Your task to perform on an android device: snooze an email in the gmail app Image 0: 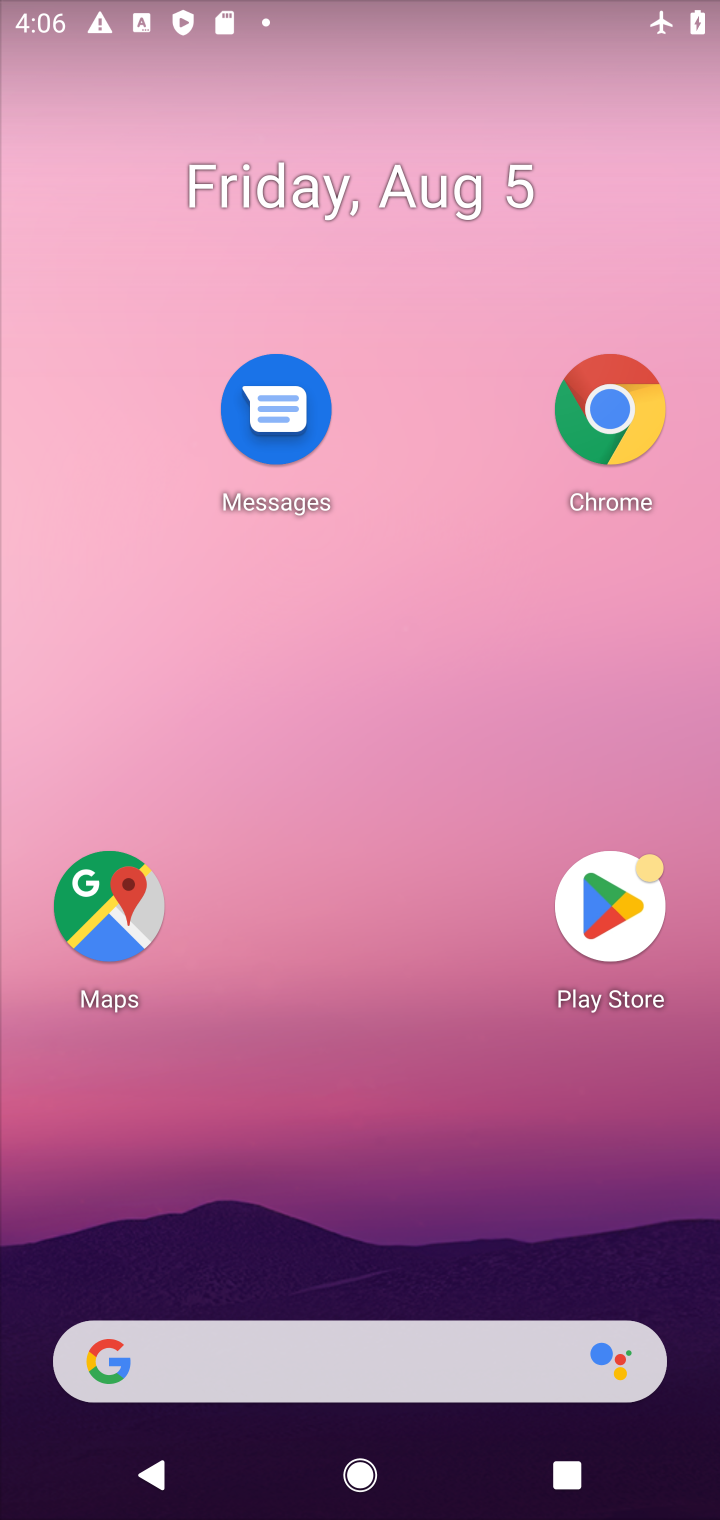
Step 0: drag from (346, 1220) to (394, 416)
Your task to perform on an android device: snooze an email in the gmail app Image 1: 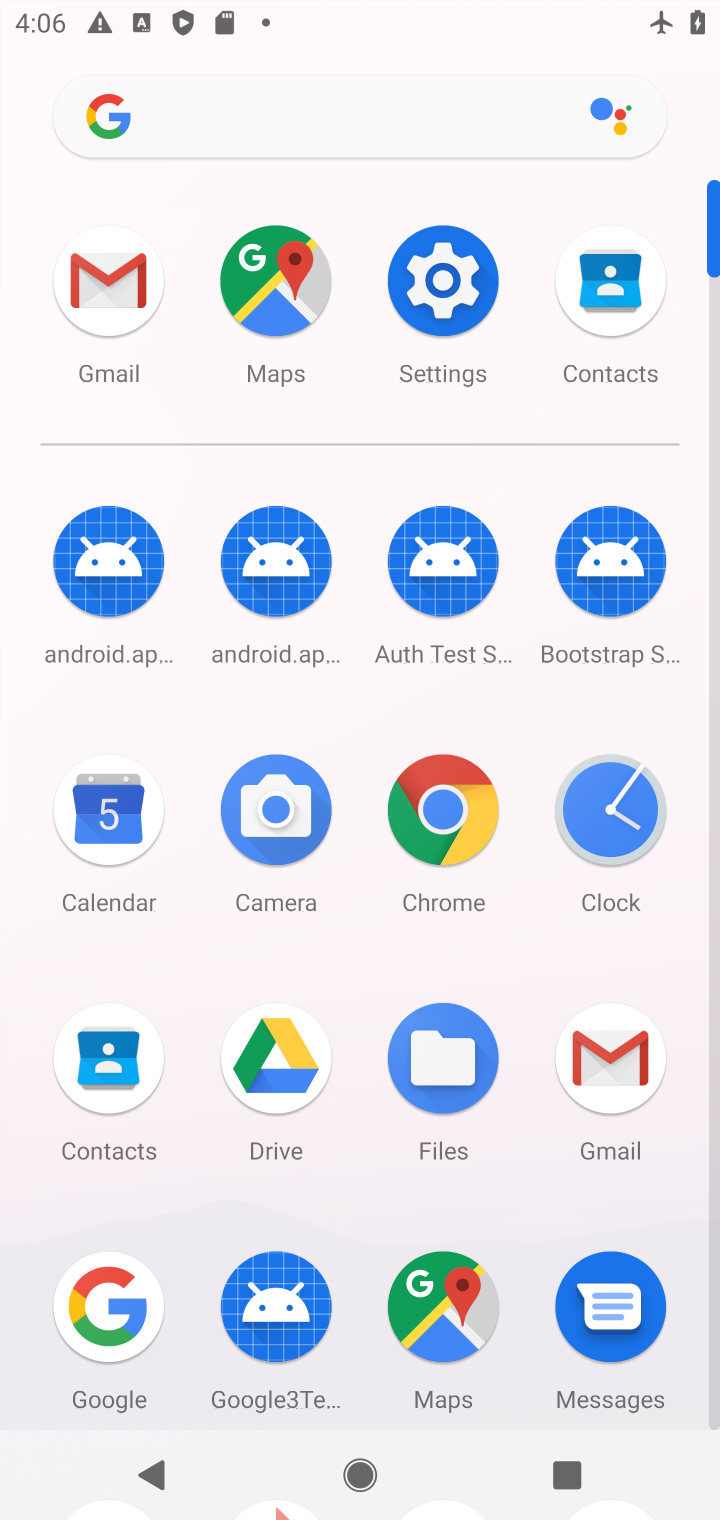
Step 1: click (102, 335)
Your task to perform on an android device: snooze an email in the gmail app Image 2: 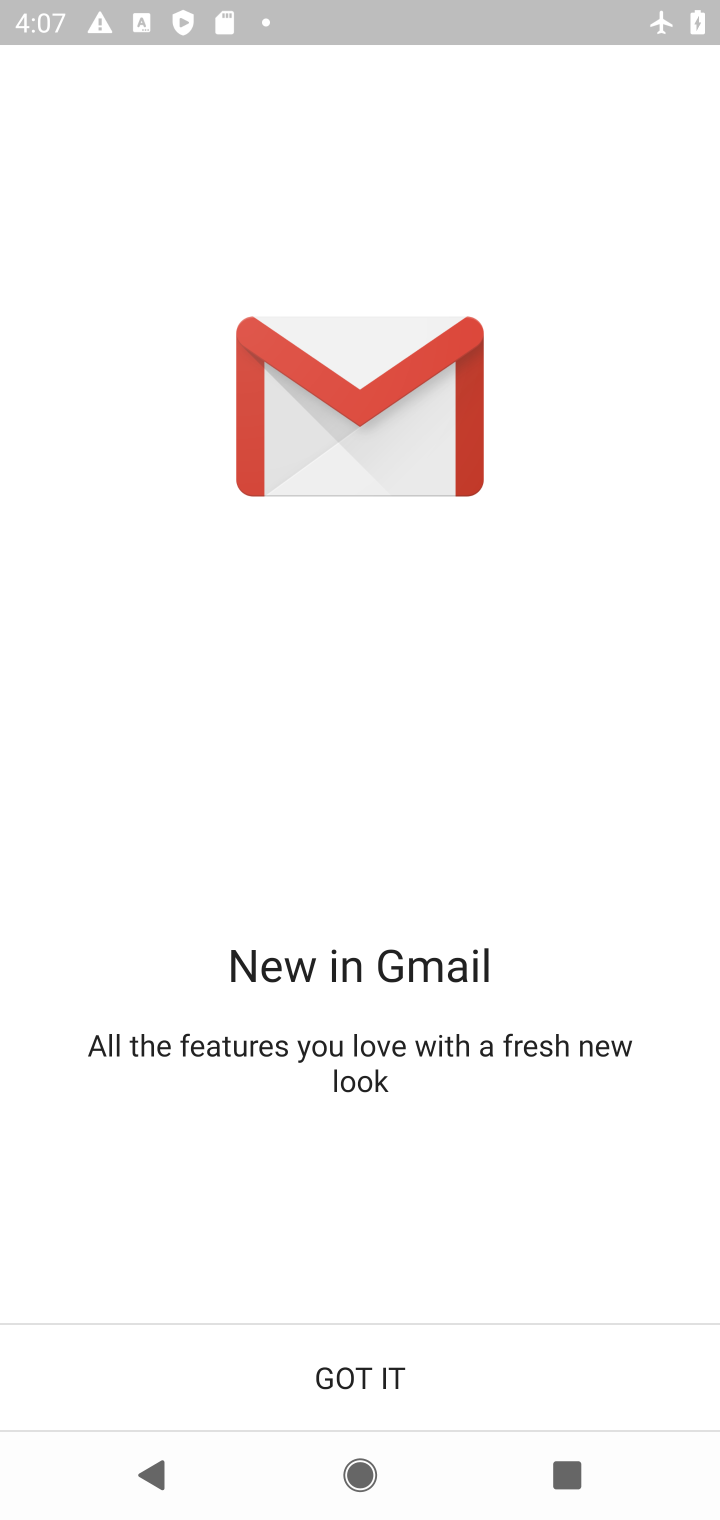
Step 2: click (558, 1329)
Your task to perform on an android device: snooze an email in the gmail app Image 3: 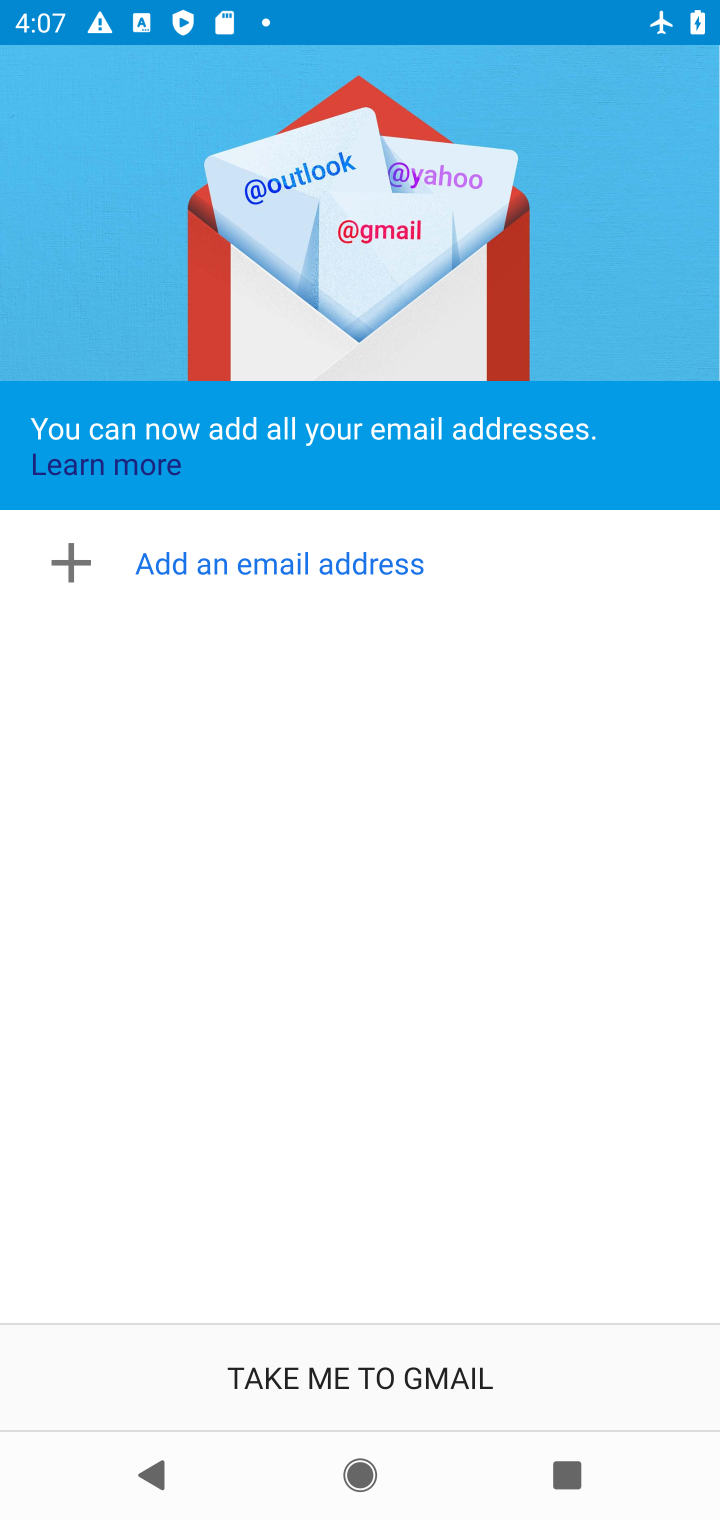
Step 3: click (558, 1329)
Your task to perform on an android device: snooze an email in the gmail app Image 4: 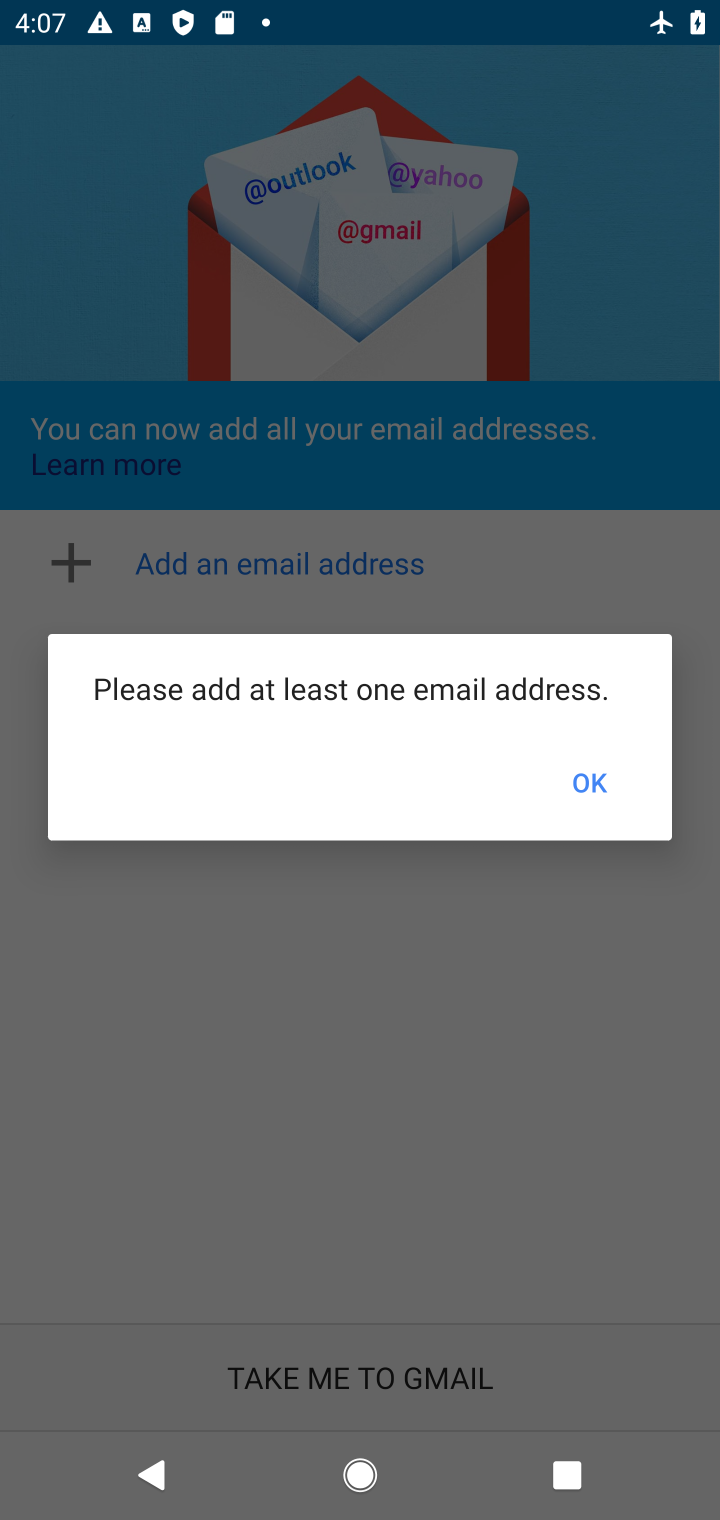
Step 4: task complete